Your task to perform on an android device: Open display settings Image 0: 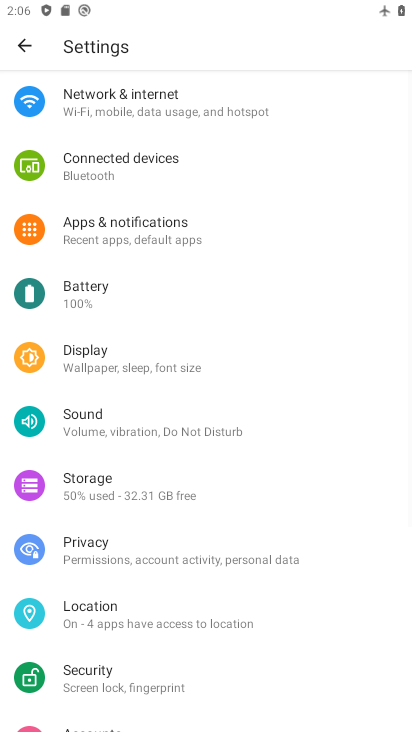
Step 0: press home button
Your task to perform on an android device: Open display settings Image 1: 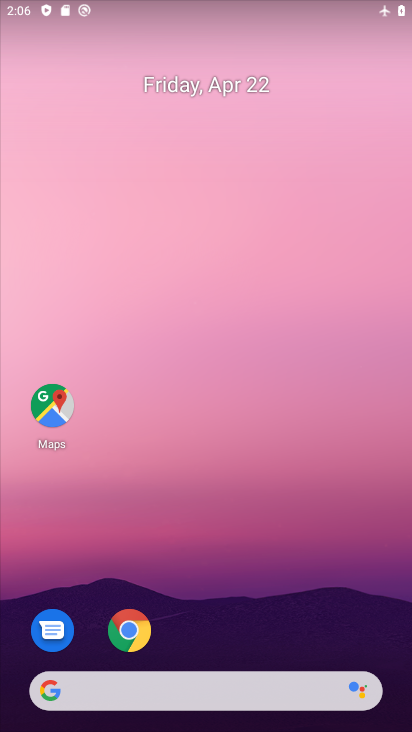
Step 1: drag from (337, 609) to (293, 248)
Your task to perform on an android device: Open display settings Image 2: 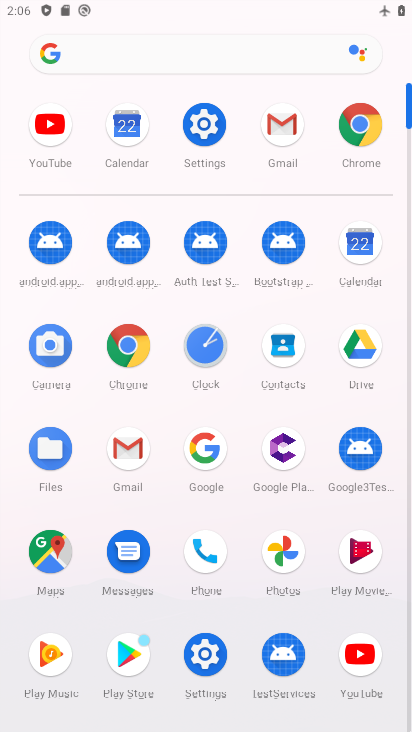
Step 2: click (202, 124)
Your task to perform on an android device: Open display settings Image 3: 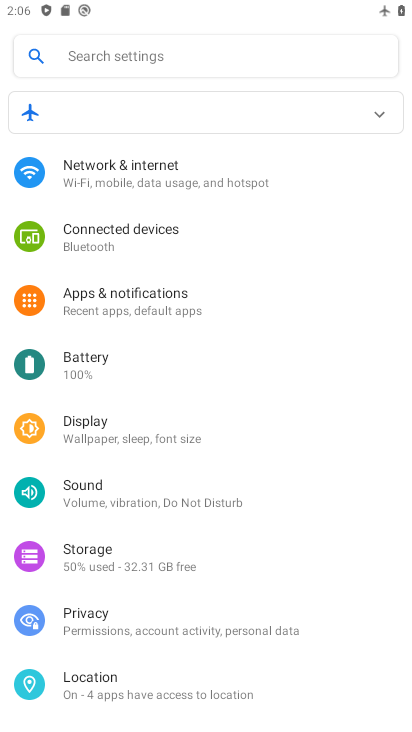
Step 3: click (87, 430)
Your task to perform on an android device: Open display settings Image 4: 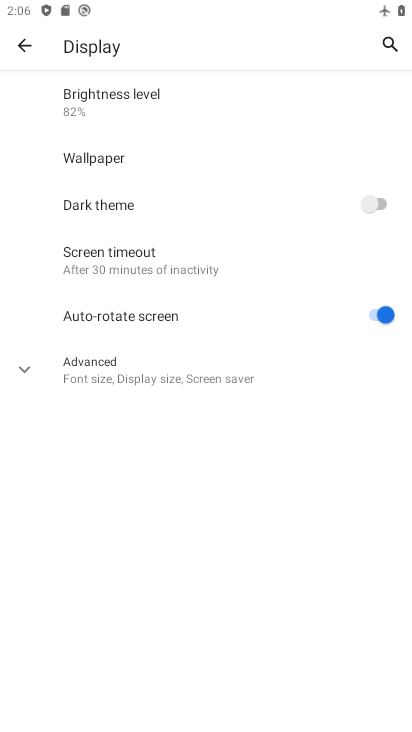
Step 4: task complete